Your task to perform on an android device: check google app version Image 0: 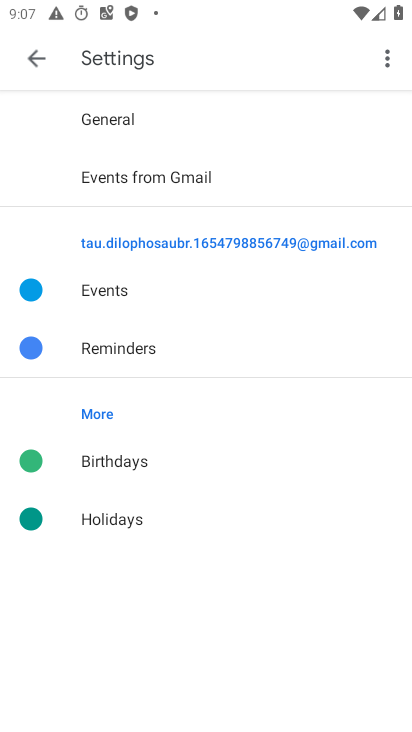
Step 0: press home button
Your task to perform on an android device: check google app version Image 1: 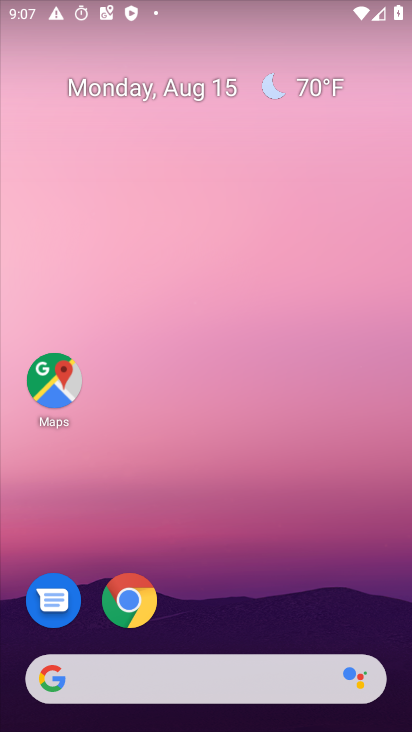
Step 1: drag from (218, 617) to (187, 69)
Your task to perform on an android device: check google app version Image 2: 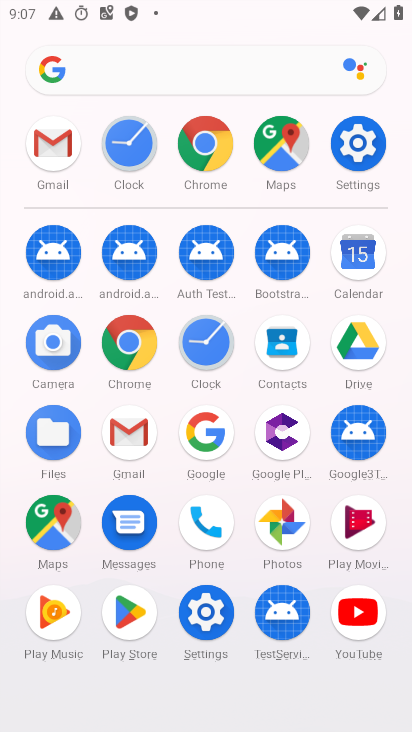
Step 2: click (202, 440)
Your task to perform on an android device: check google app version Image 3: 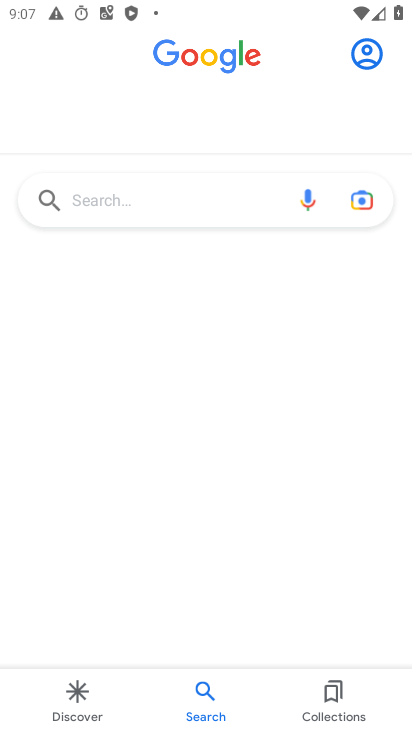
Step 3: click (363, 54)
Your task to perform on an android device: check google app version Image 4: 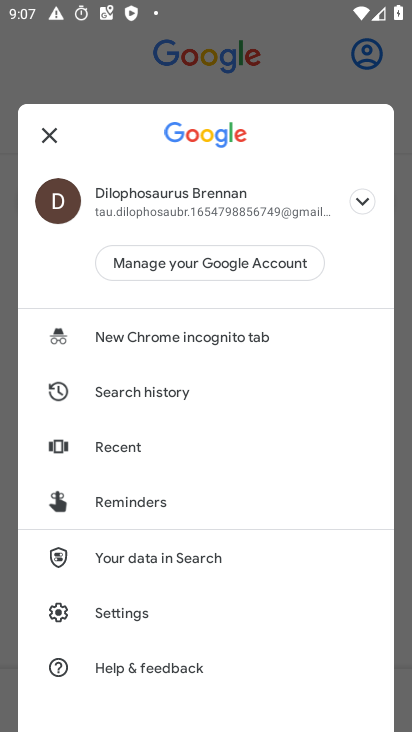
Step 4: click (114, 611)
Your task to perform on an android device: check google app version Image 5: 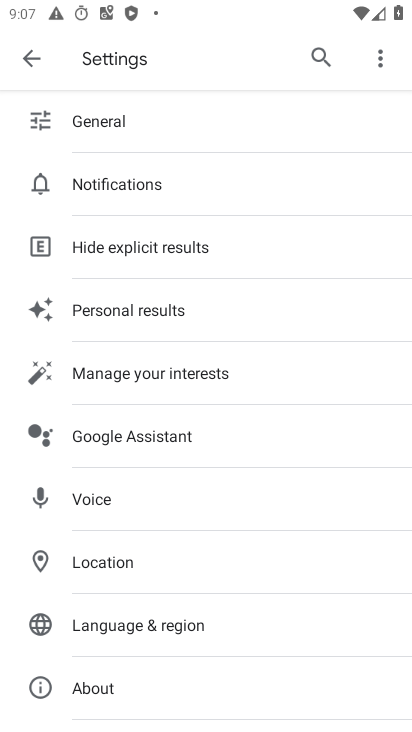
Step 5: click (94, 685)
Your task to perform on an android device: check google app version Image 6: 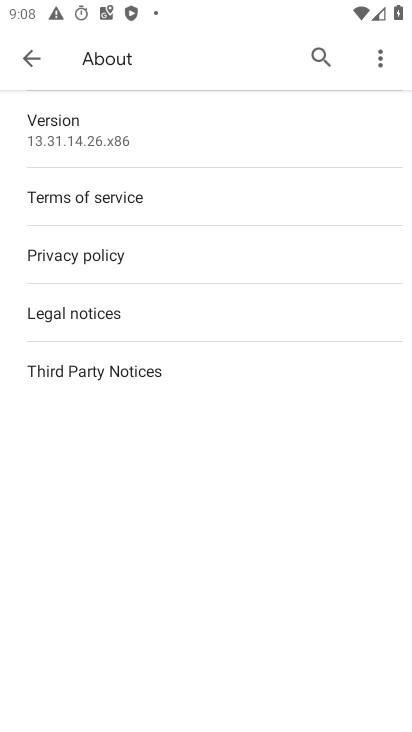
Step 6: click (78, 129)
Your task to perform on an android device: check google app version Image 7: 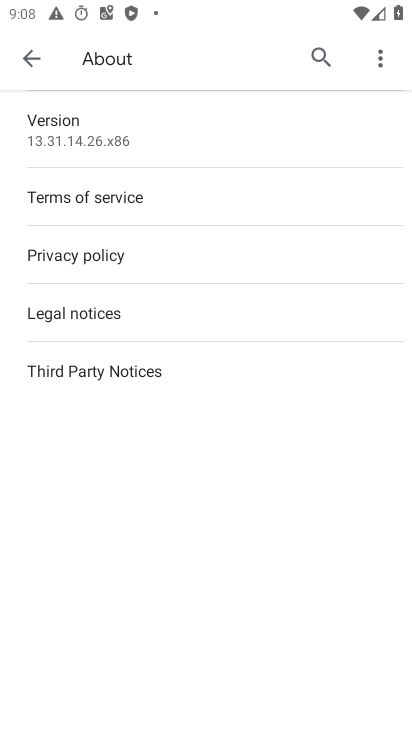
Step 7: task complete